Your task to perform on an android device: empty trash in google photos Image 0: 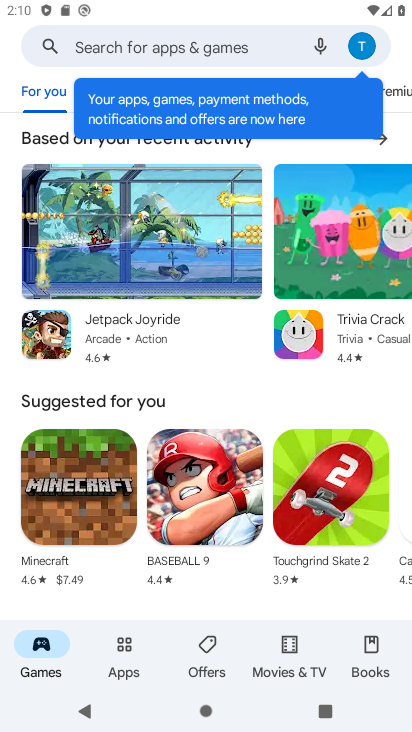
Step 0: press back button
Your task to perform on an android device: empty trash in google photos Image 1: 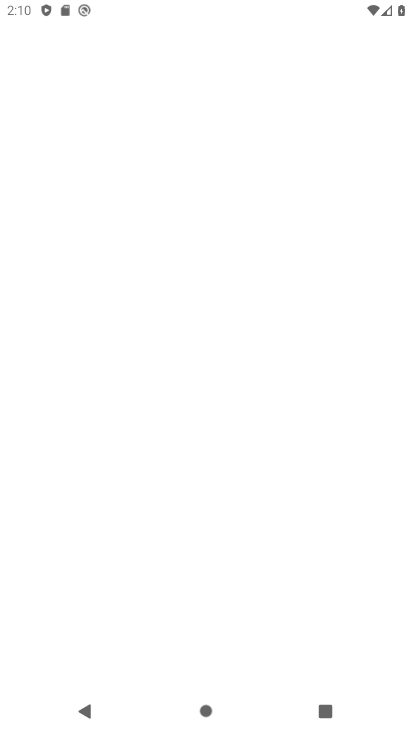
Step 1: press back button
Your task to perform on an android device: empty trash in google photos Image 2: 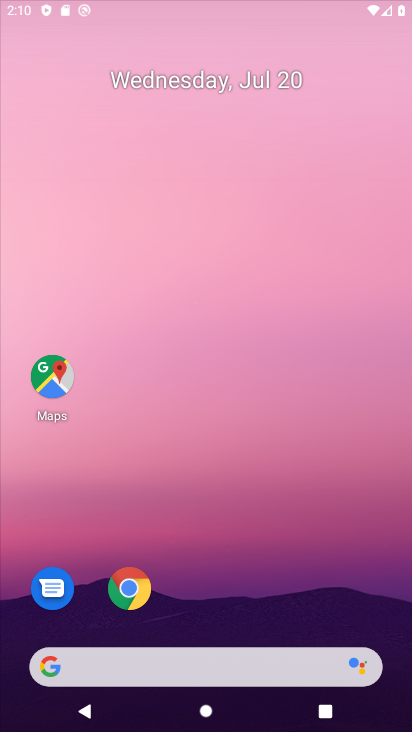
Step 2: press back button
Your task to perform on an android device: empty trash in google photos Image 3: 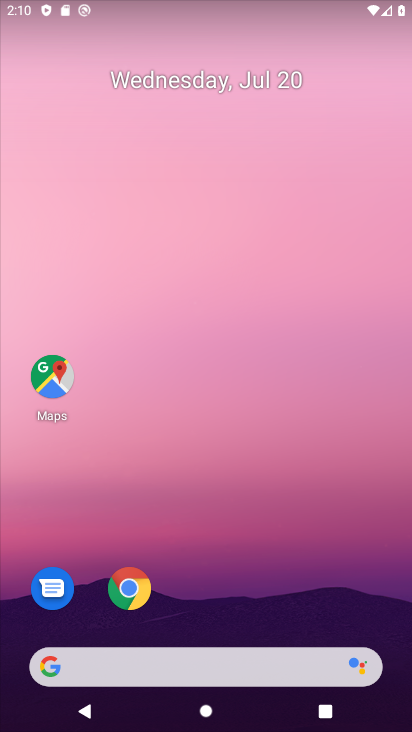
Step 3: drag from (284, 559) to (264, 172)
Your task to perform on an android device: empty trash in google photos Image 4: 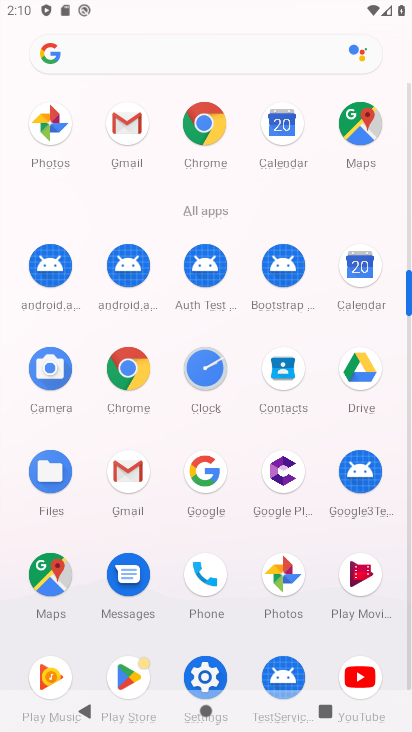
Step 4: click (286, 569)
Your task to perform on an android device: empty trash in google photos Image 5: 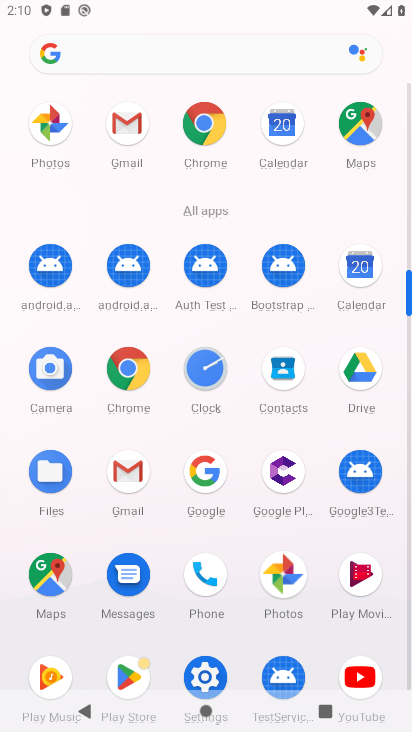
Step 5: click (285, 570)
Your task to perform on an android device: empty trash in google photos Image 6: 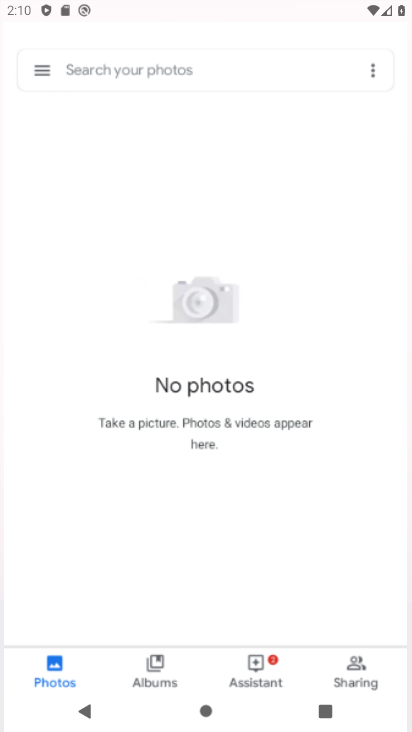
Step 6: click (289, 568)
Your task to perform on an android device: empty trash in google photos Image 7: 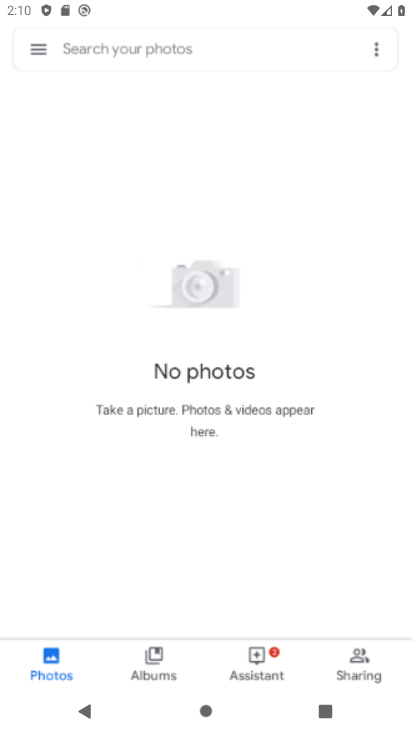
Step 7: click (290, 568)
Your task to perform on an android device: empty trash in google photos Image 8: 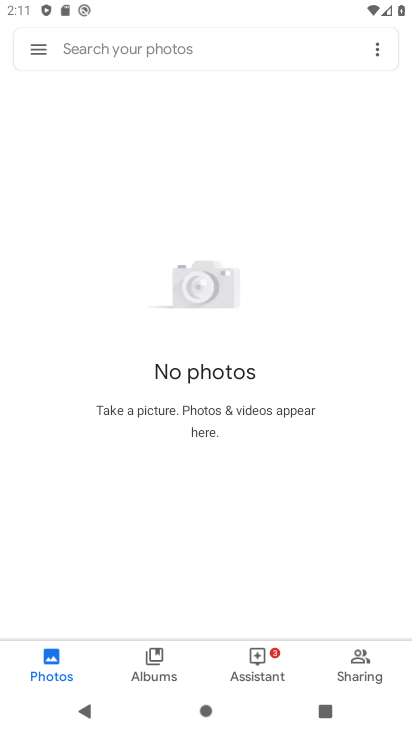
Step 8: click (52, 666)
Your task to perform on an android device: empty trash in google photos Image 9: 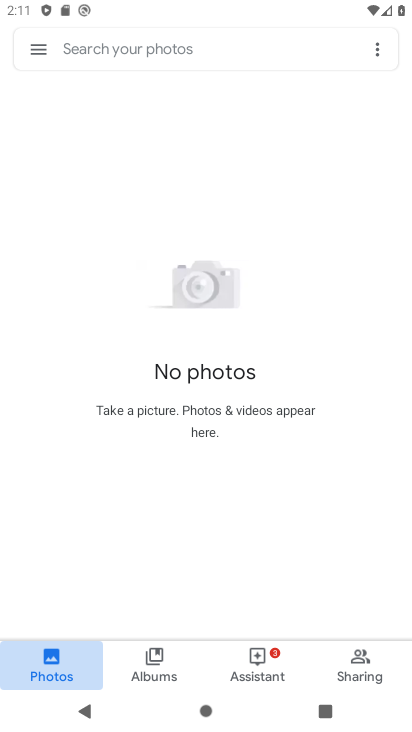
Step 9: click (52, 665)
Your task to perform on an android device: empty trash in google photos Image 10: 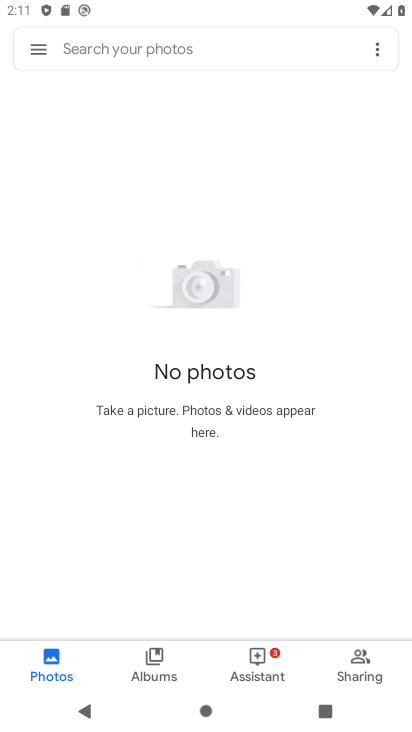
Step 10: click (52, 665)
Your task to perform on an android device: empty trash in google photos Image 11: 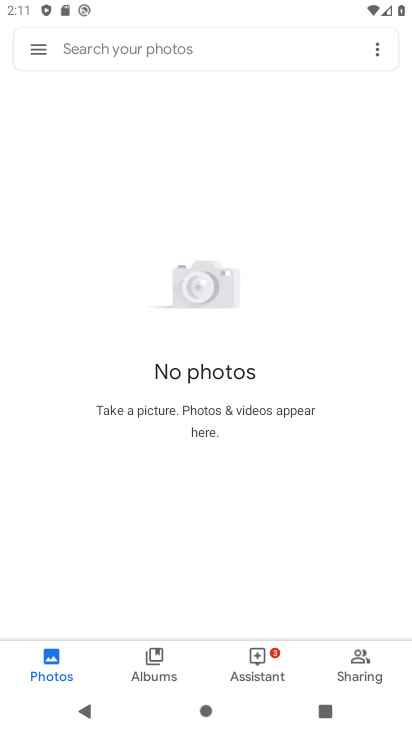
Step 11: click (34, 48)
Your task to perform on an android device: empty trash in google photos Image 12: 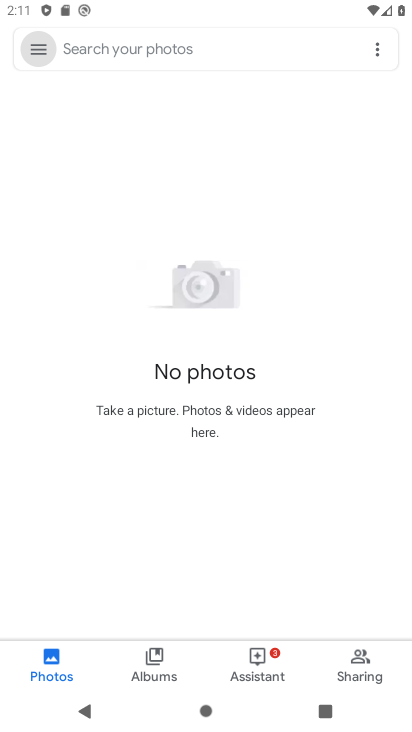
Step 12: click (34, 48)
Your task to perform on an android device: empty trash in google photos Image 13: 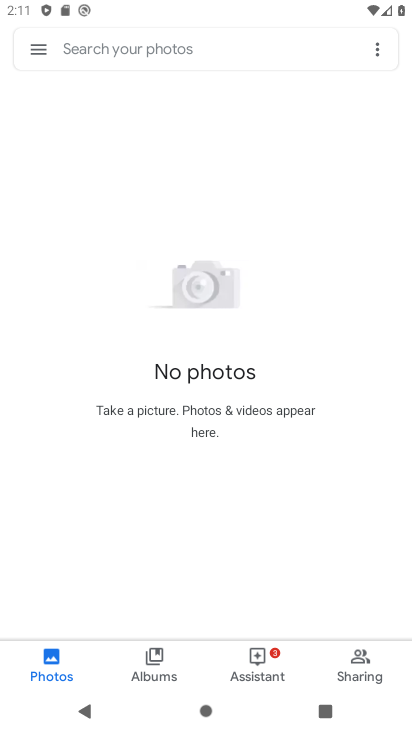
Step 13: drag from (41, 53) to (88, 90)
Your task to perform on an android device: empty trash in google photos Image 14: 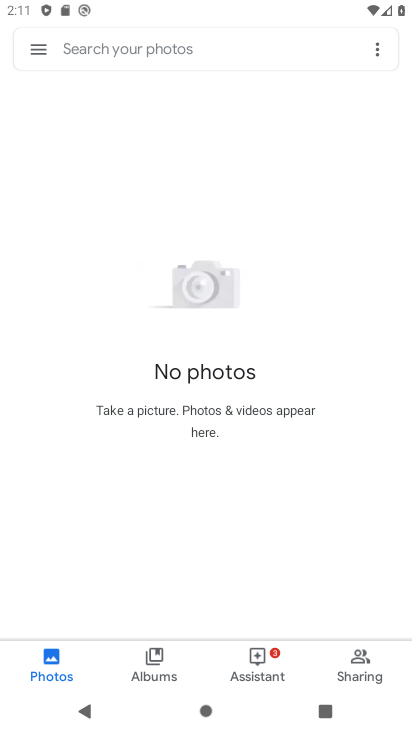
Step 14: click (51, 48)
Your task to perform on an android device: empty trash in google photos Image 15: 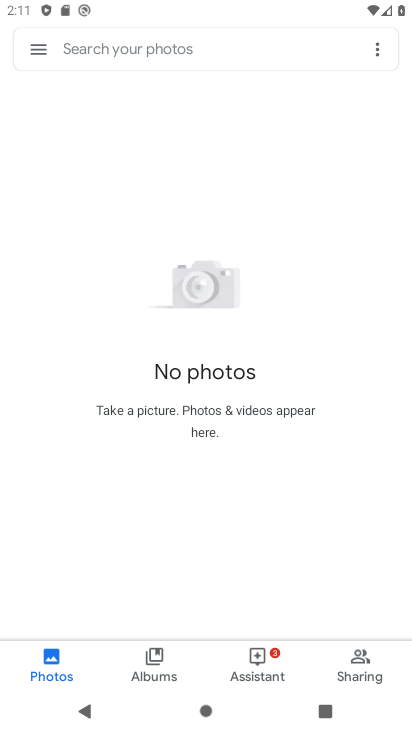
Step 15: click (45, 47)
Your task to perform on an android device: empty trash in google photos Image 16: 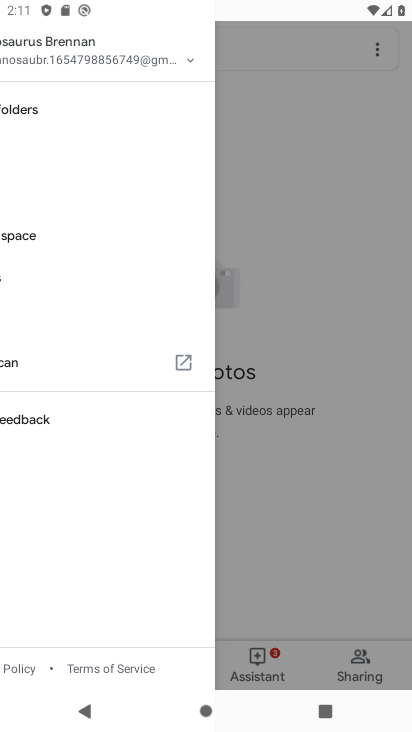
Step 16: click (45, 47)
Your task to perform on an android device: empty trash in google photos Image 17: 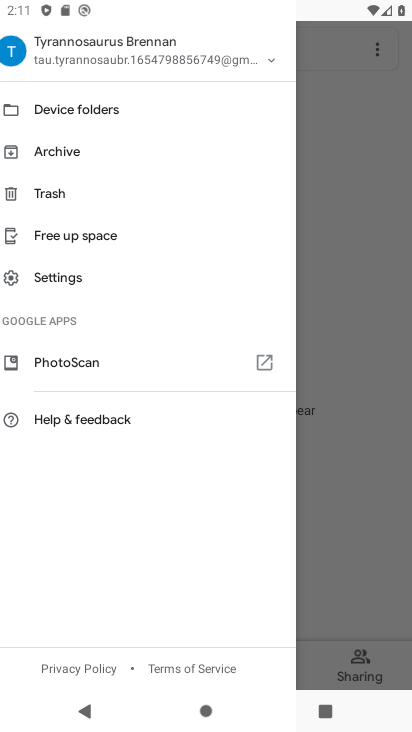
Step 17: click (45, 47)
Your task to perform on an android device: empty trash in google photos Image 18: 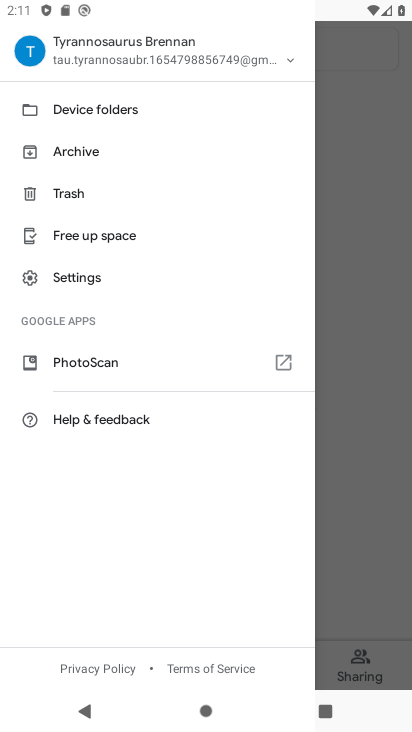
Step 18: click (68, 191)
Your task to perform on an android device: empty trash in google photos Image 19: 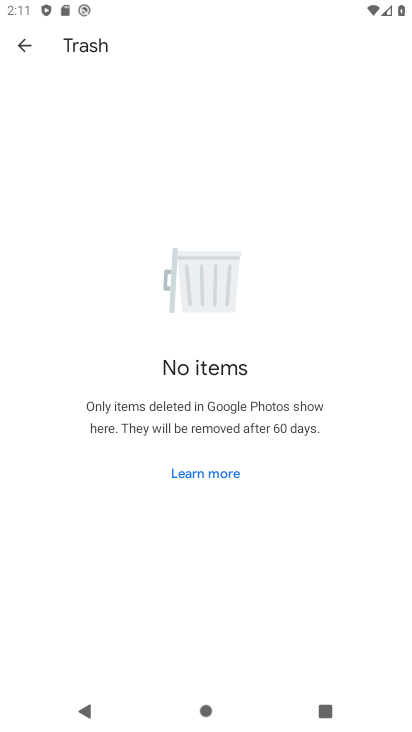
Step 19: task complete